Your task to perform on an android device: Open the web browser Image 0: 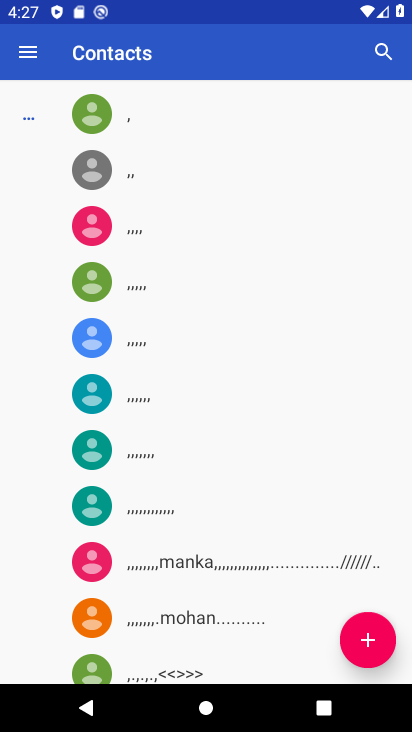
Step 0: press home button
Your task to perform on an android device: Open the web browser Image 1: 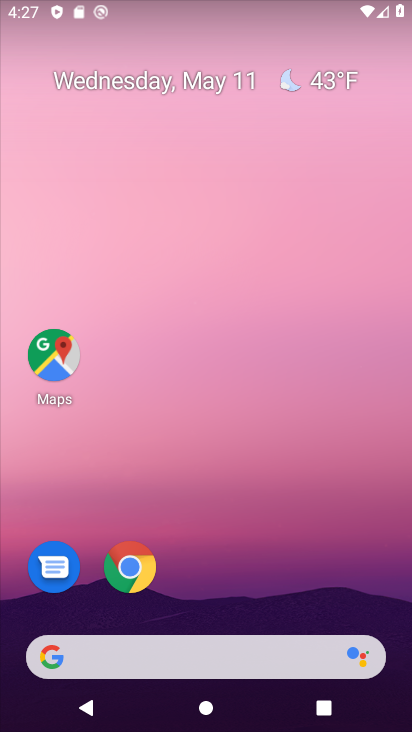
Step 1: click (142, 582)
Your task to perform on an android device: Open the web browser Image 2: 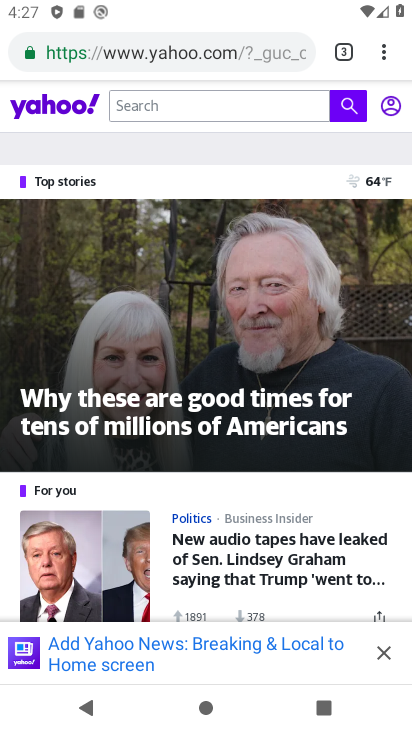
Step 2: task complete